Your task to perform on an android device: add a contact in the contacts app Image 0: 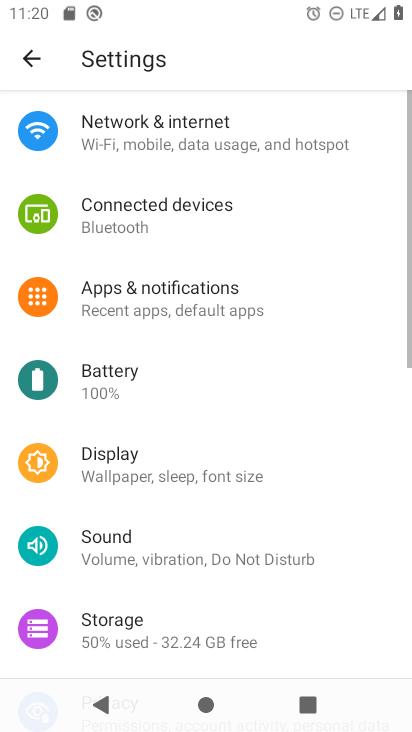
Step 0: press home button
Your task to perform on an android device: add a contact in the contacts app Image 1: 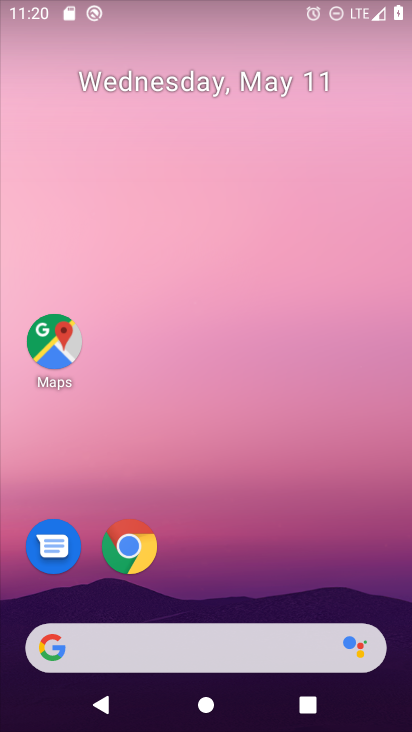
Step 1: drag from (397, 619) to (216, 53)
Your task to perform on an android device: add a contact in the contacts app Image 2: 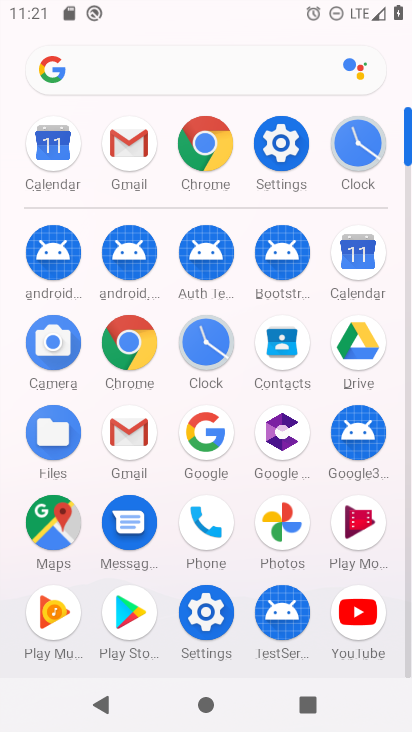
Step 2: click (282, 351)
Your task to perform on an android device: add a contact in the contacts app Image 3: 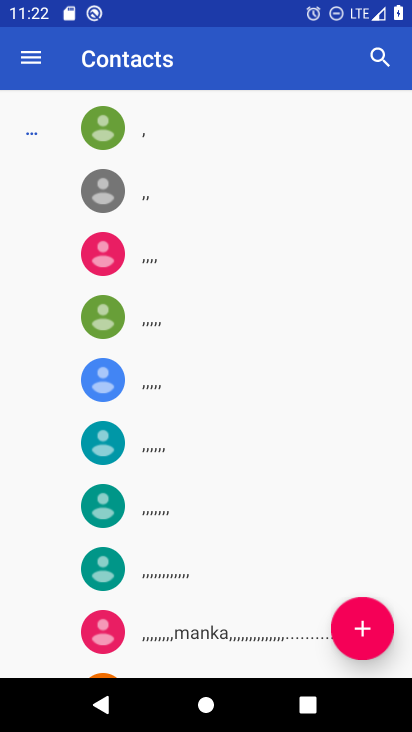
Step 3: click (355, 625)
Your task to perform on an android device: add a contact in the contacts app Image 4: 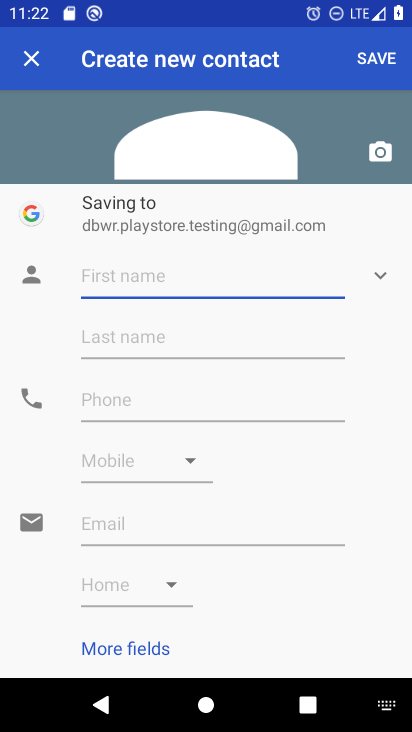
Step 4: type "osam"
Your task to perform on an android device: add a contact in the contacts app Image 5: 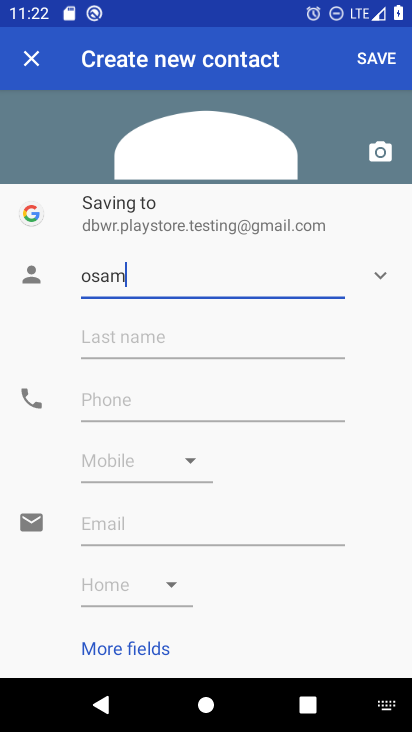
Step 5: click (392, 62)
Your task to perform on an android device: add a contact in the contacts app Image 6: 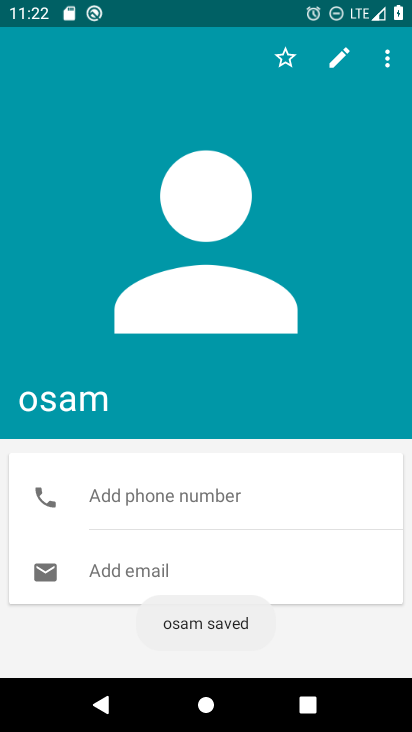
Step 6: task complete